Your task to perform on an android device: turn off data saver in the chrome app Image 0: 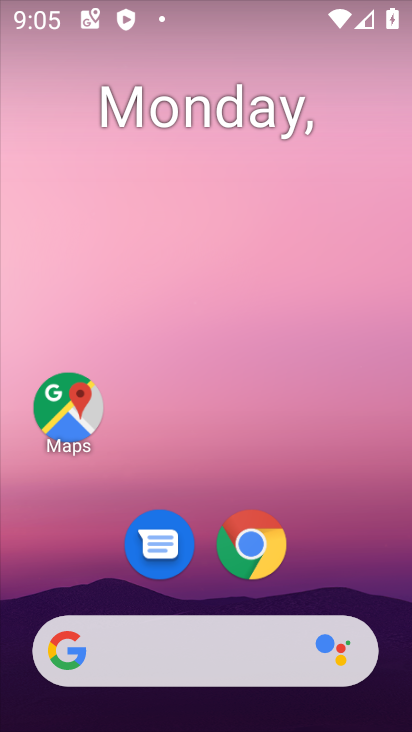
Step 0: click (237, 546)
Your task to perform on an android device: turn off data saver in the chrome app Image 1: 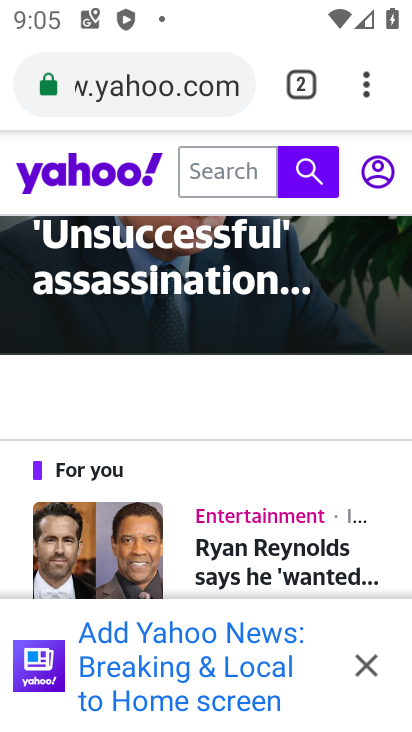
Step 1: click (368, 79)
Your task to perform on an android device: turn off data saver in the chrome app Image 2: 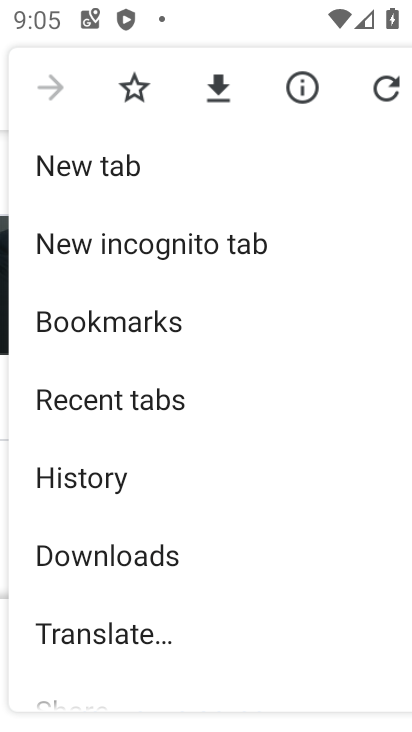
Step 2: drag from (252, 450) to (217, 160)
Your task to perform on an android device: turn off data saver in the chrome app Image 3: 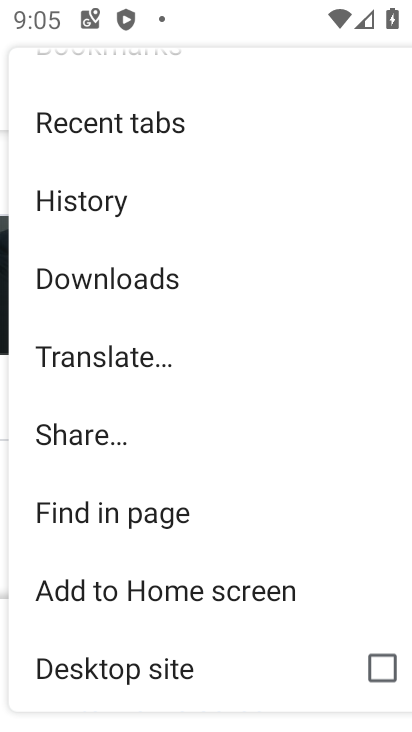
Step 3: drag from (197, 625) to (166, 219)
Your task to perform on an android device: turn off data saver in the chrome app Image 4: 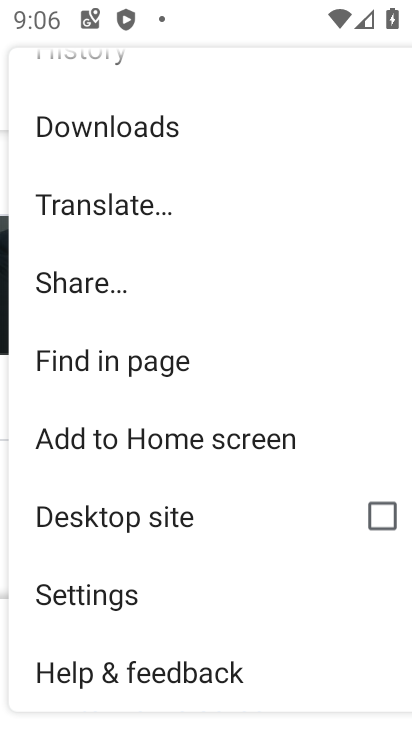
Step 4: click (88, 587)
Your task to perform on an android device: turn off data saver in the chrome app Image 5: 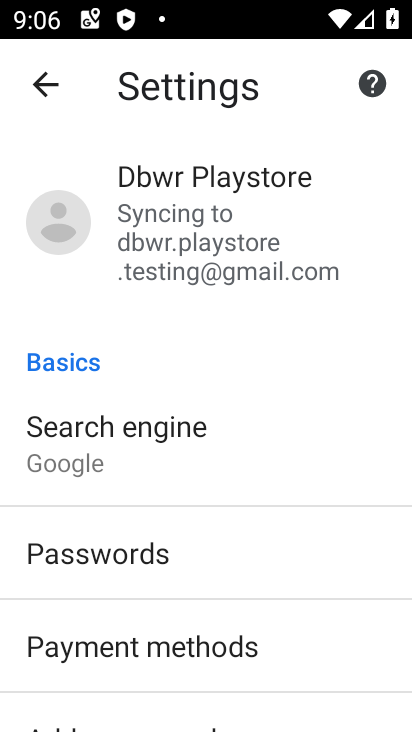
Step 5: drag from (251, 567) to (228, 192)
Your task to perform on an android device: turn off data saver in the chrome app Image 6: 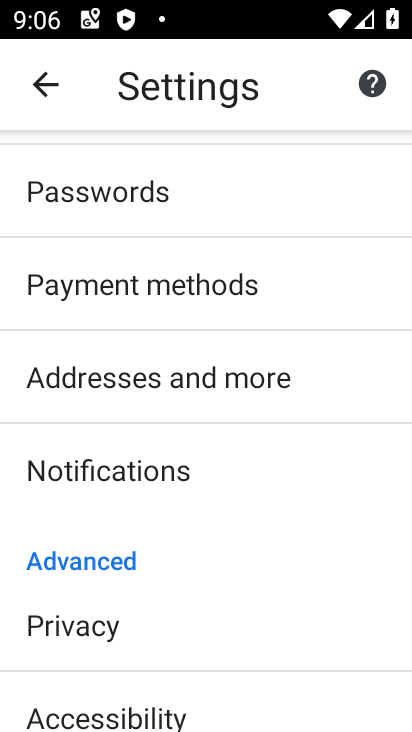
Step 6: drag from (189, 566) to (168, 290)
Your task to perform on an android device: turn off data saver in the chrome app Image 7: 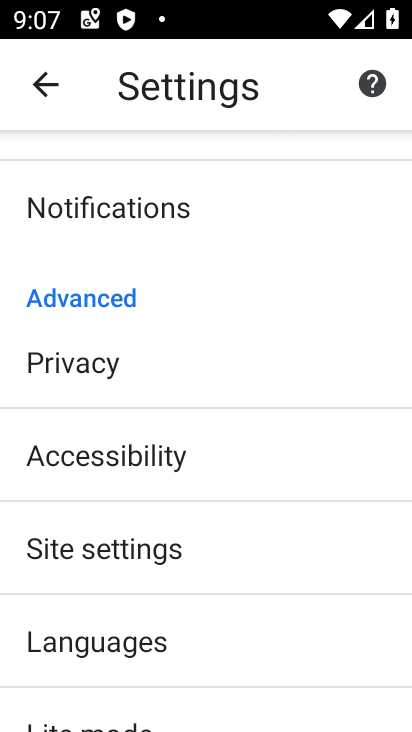
Step 7: drag from (219, 570) to (219, 218)
Your task to perform on an android device: turn off data saver in the chrome app Image 8: 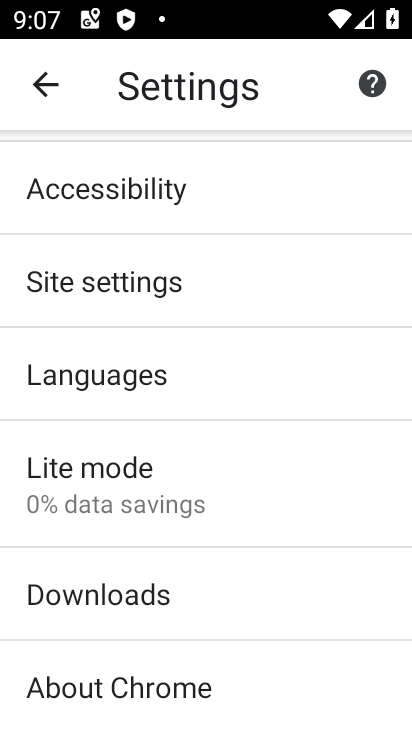
Step 8: click (95, 476)
Your task to perform on an android device: turn off data saver in the chrome app Image 9: 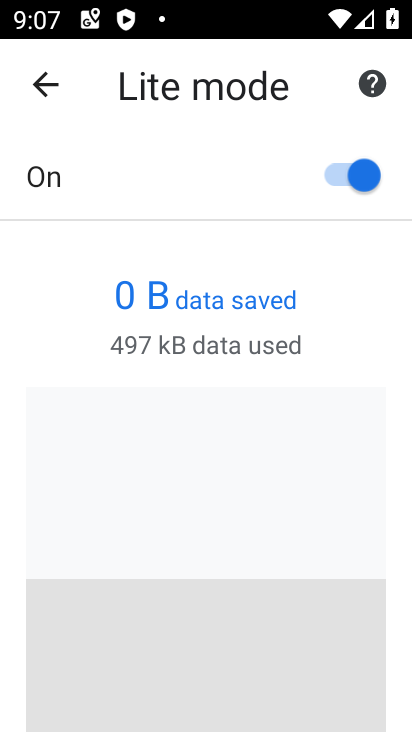
Step 9: click (356, 166)
Your task to perform on an android device: turn off data saver in the chrome app Image 10: 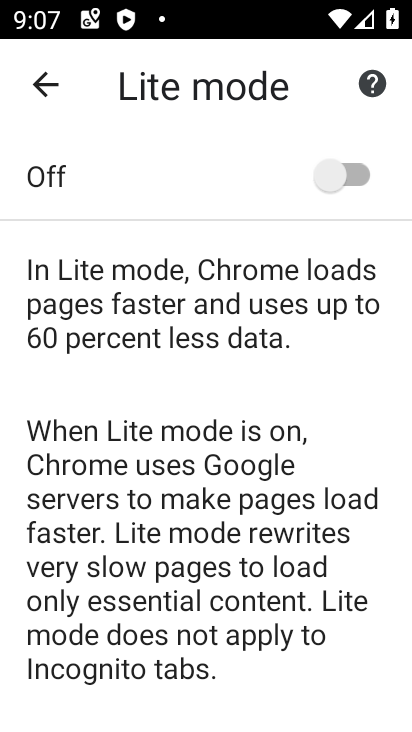
Step 10: task complete